Your task to perform on an android device: Open maps Image 0: 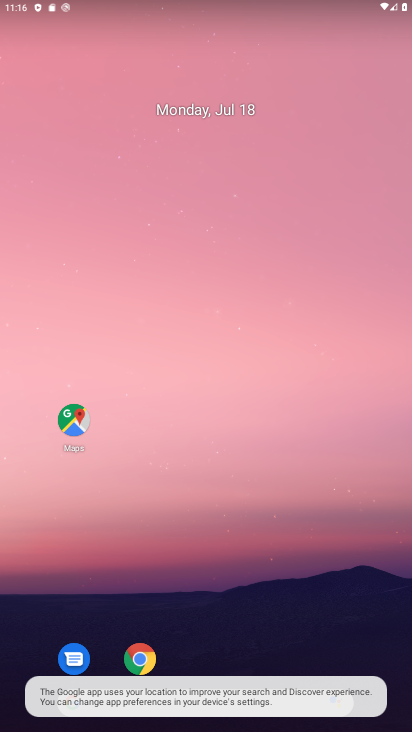
Step 0: click (73, 426)
Your task to perform on an android device: Open maps Image 1: 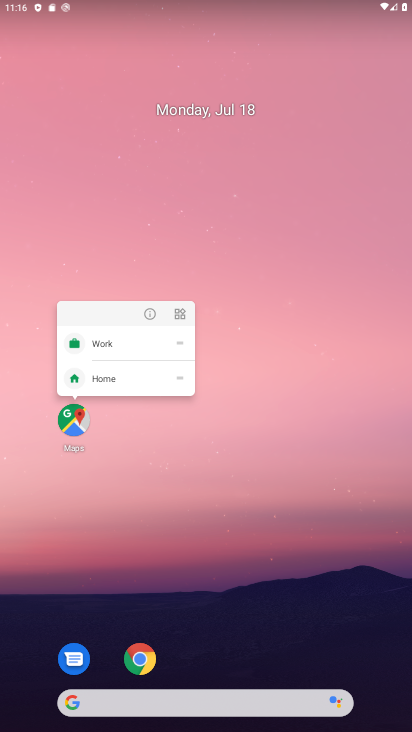
Step 1: click (73, 426)
Your task to perform on an android device: Open maps Image 2: 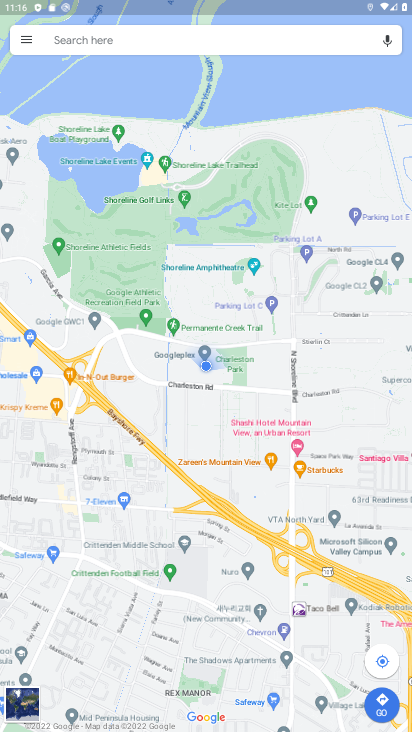
Step 2: task complete